Your task to perform on an android device: Open internet settings Image 0: 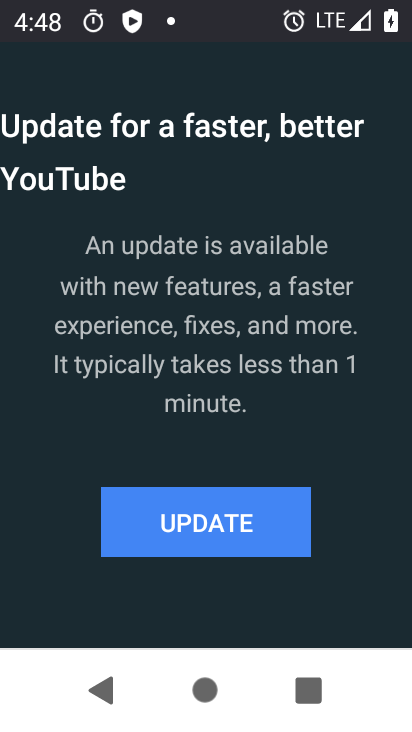
Step 0: press back button
Your task to perform on an android device: Open internet settings Image 1: 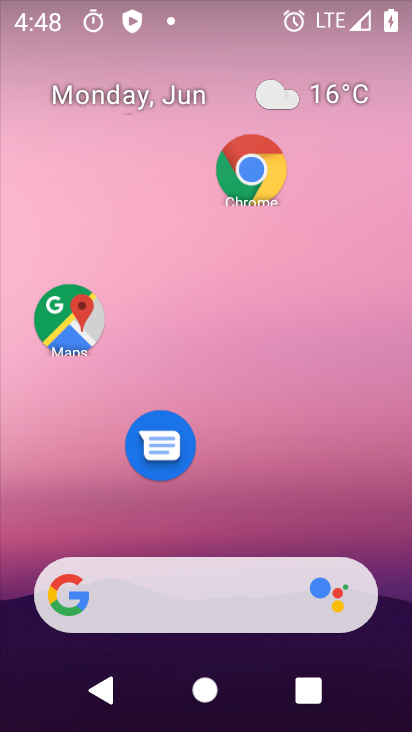
Step 1: drag from (239, 512) to (242, 5)
Your task to perform on an android device: Open internet settings Image 2: 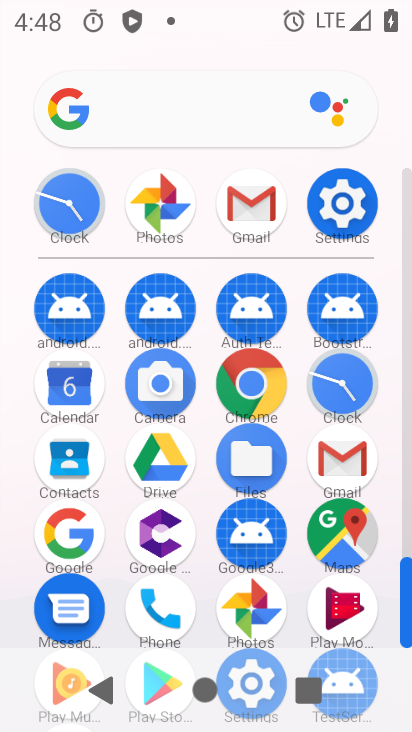
Step 2: click (341, 216)
Your task to perform on an android device: Open internet settings Image 3: 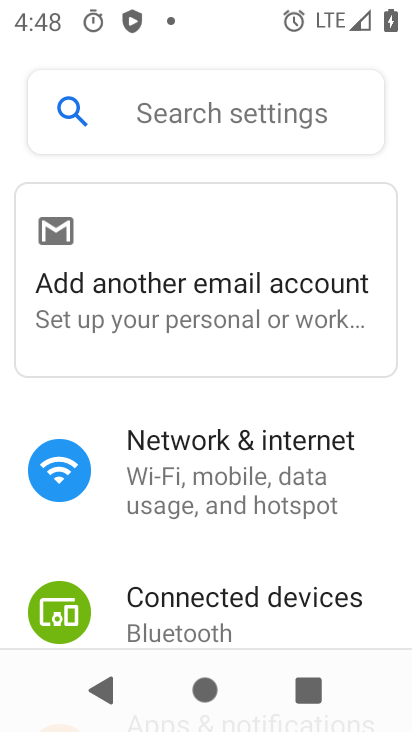
Step 3: click (204, 554)
Your task to perform on an android device: Open internet settings Image 4: 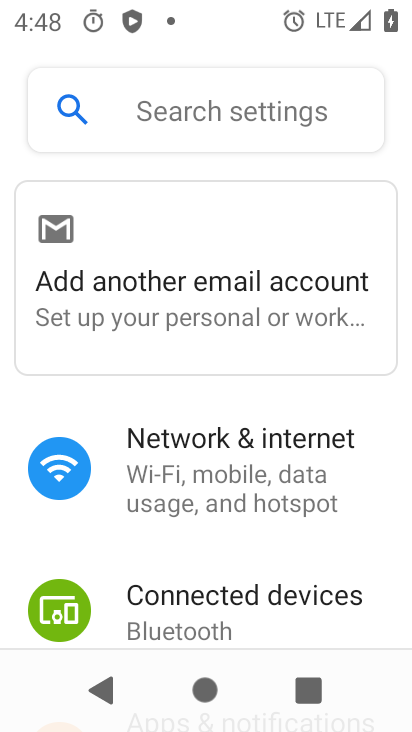
Step 4: drag from (229, 528) to (212, 237)
Your task to perform on an android device: Open internet settings Image 5: 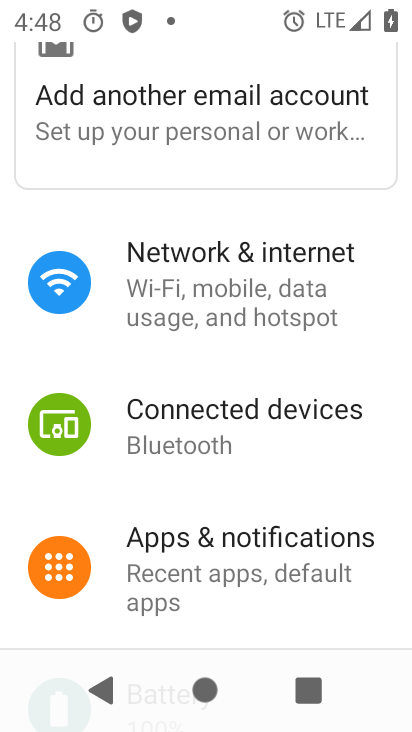
Step 5: drag from (209, 526) to (226, 291)
Your task to perform on an android device: Open internet settings Image 6: 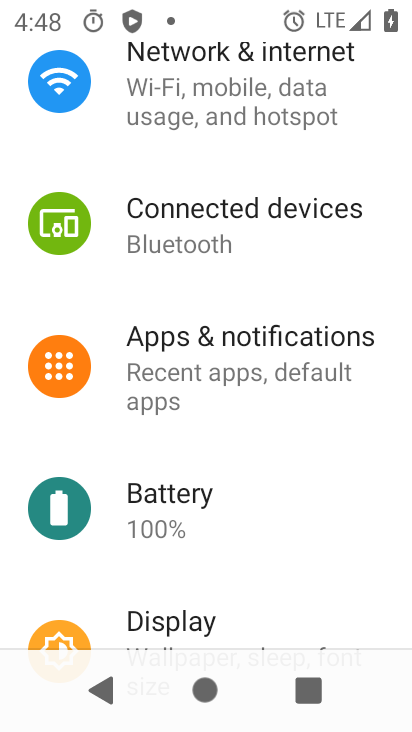
Step 6: drag from (215, 508) to (254, 250)
Your task to perform on an android device: Open internet settings Image 7: 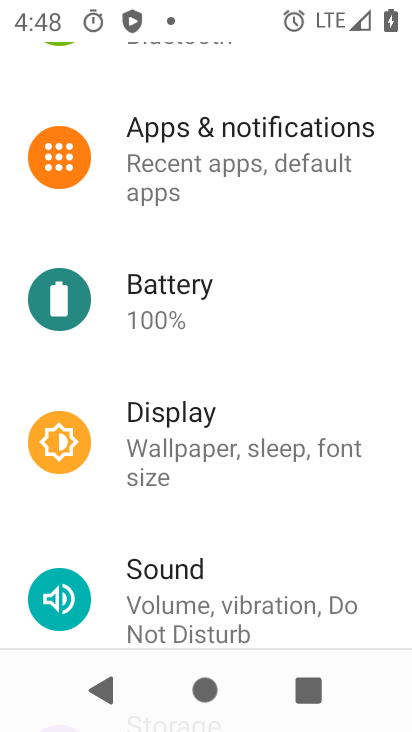
Step 7: drag from (246, 225) to (208, 487)
Your task to perform on an android device: Open internet settings Image 8: 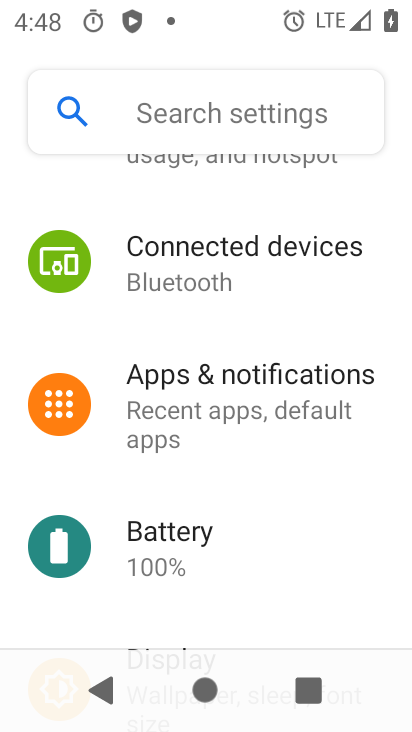
Step 8: drag from (240, 299) to (239, 680)
Your task to perform on an android device: Open internet settings Image 9: 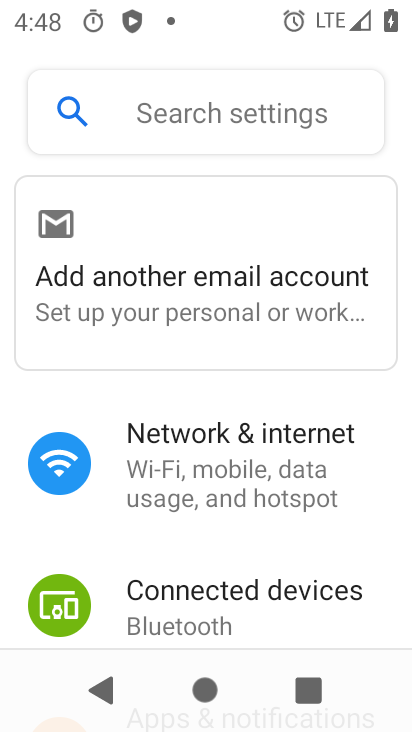
Step 9: click (229, 496)
Your task to perform on an android device: Open internet settings Image 10: 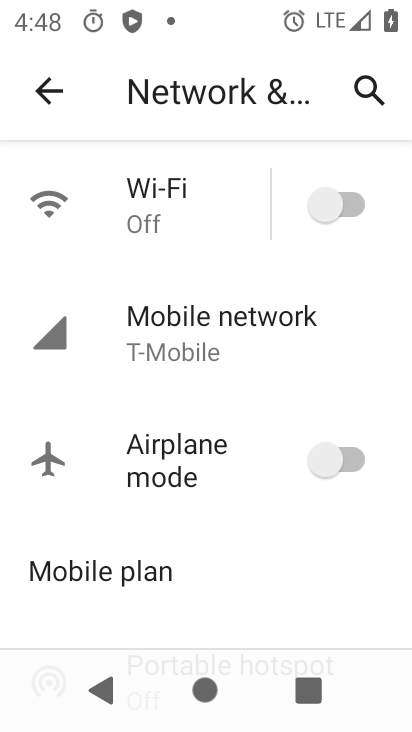
Step 10: task complete